Your task to perform on an android device: What's the weather today? Image 0: 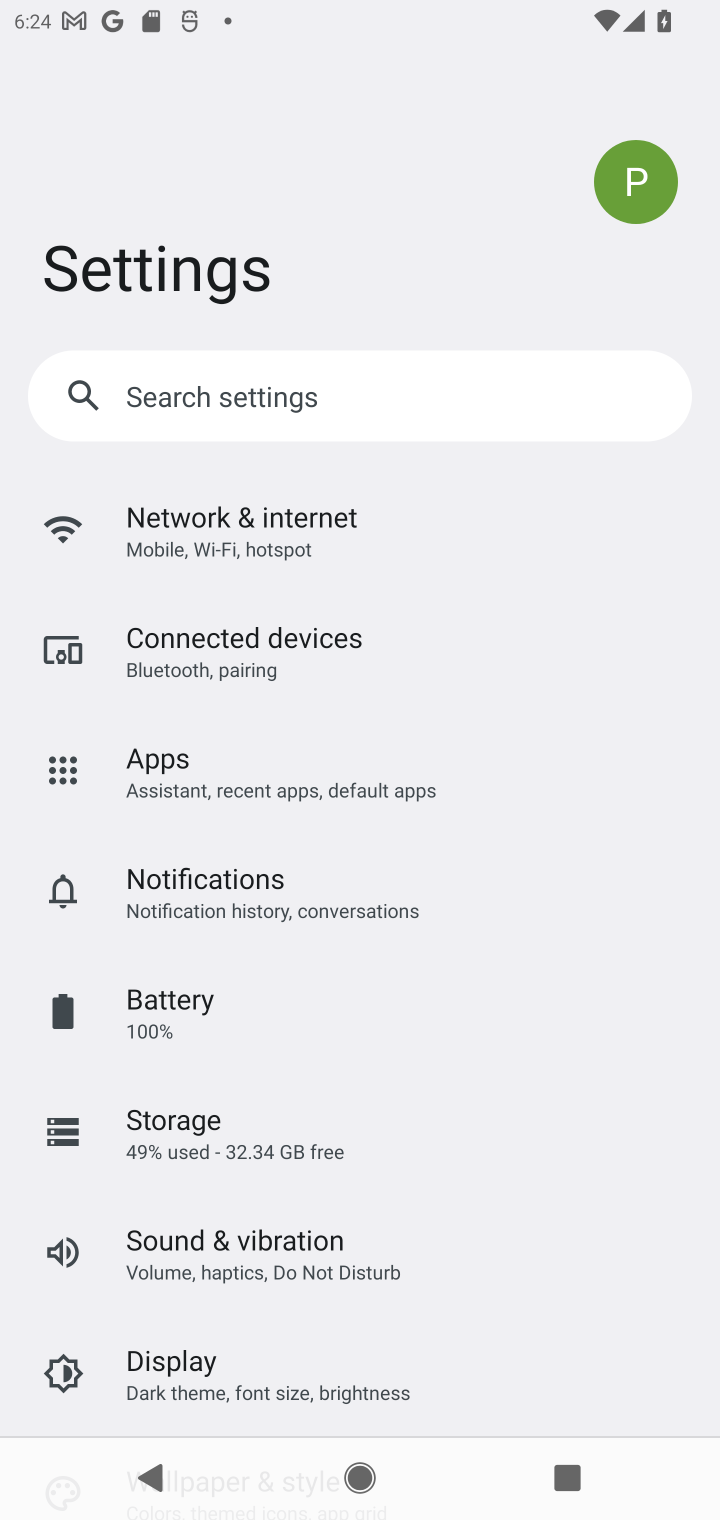
Step 0: press home button
Your task to perform on an android device: What's the weather today? Image 1: 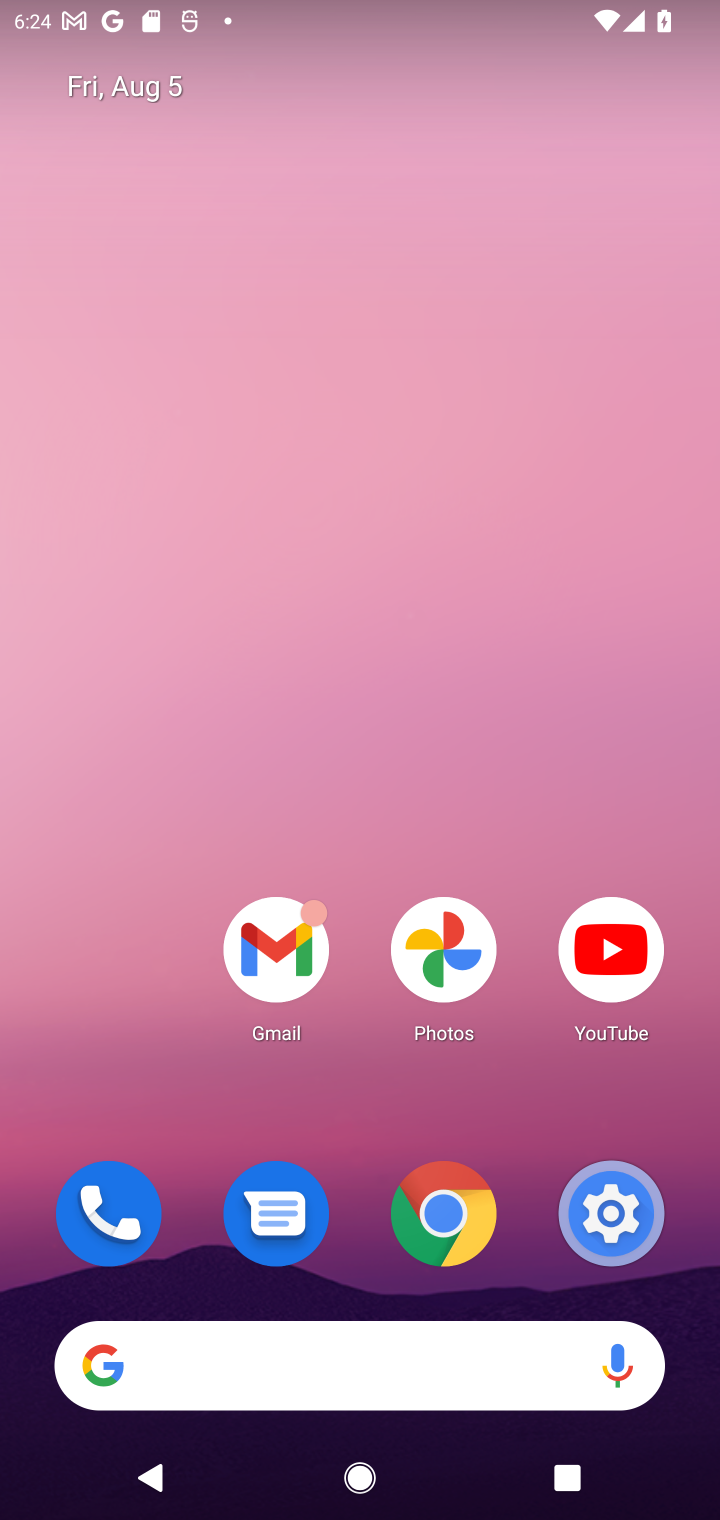
Step 1: click (395, 1391)
Your task to perform on an android device: What's the weather today? Image 2: 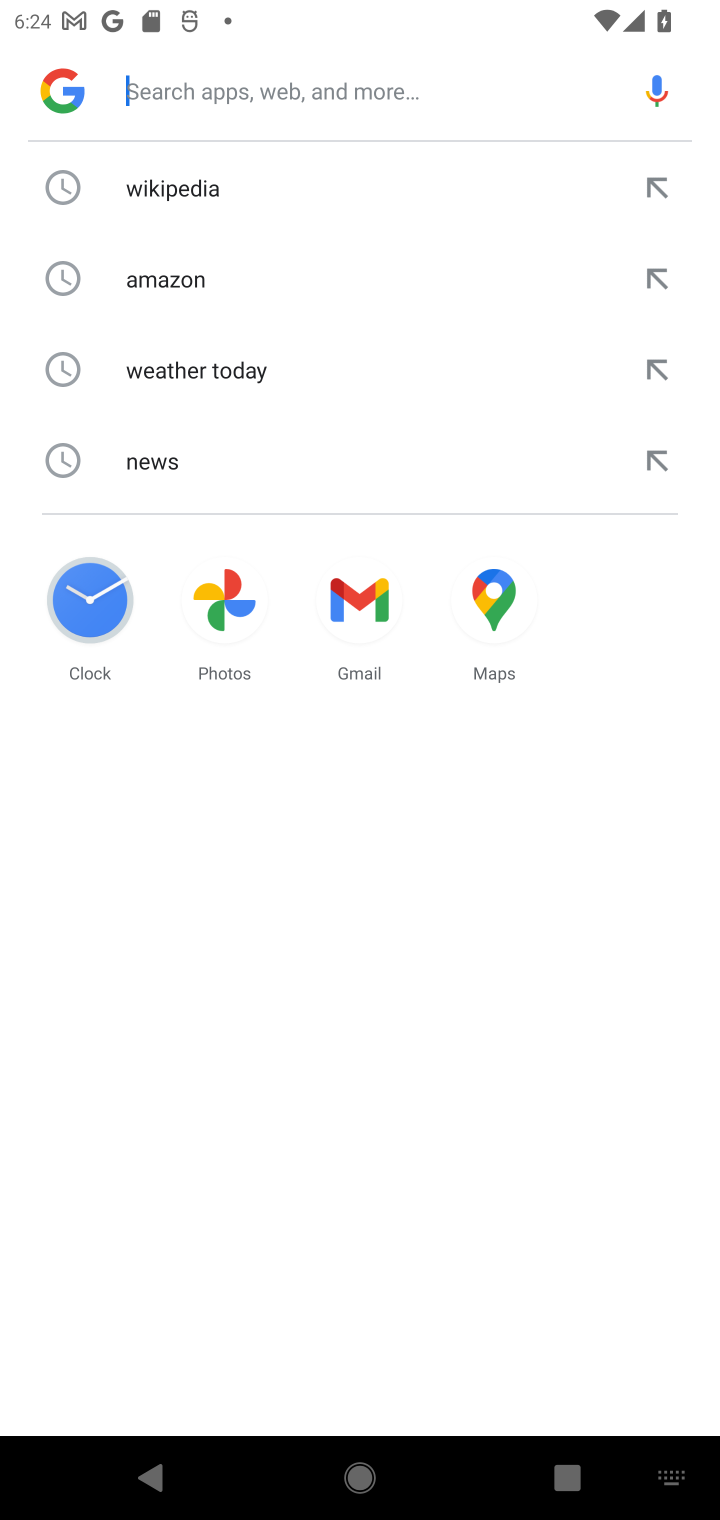
Step 2: click (326, 370)
Your task to perform on an android device: What's the weather today? Image 3: 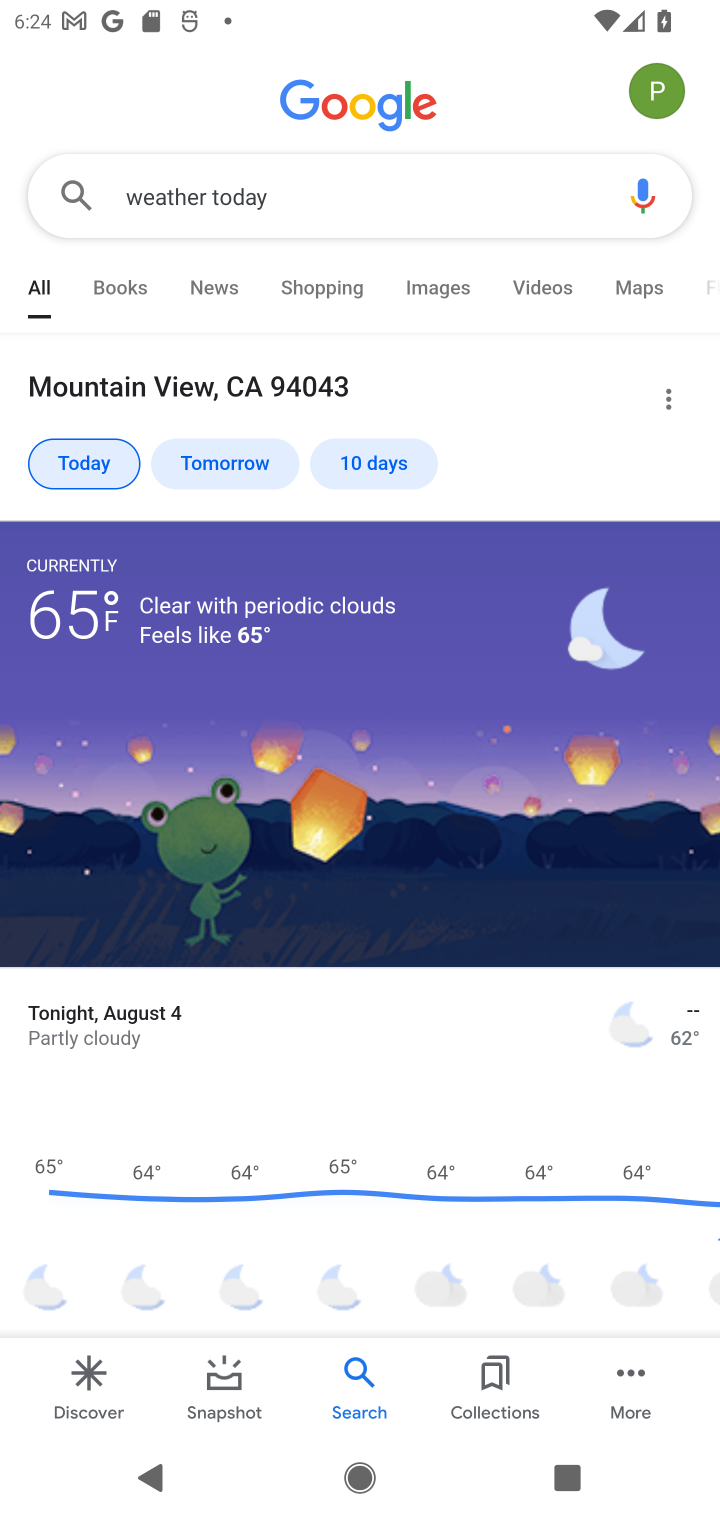
Step 3: task complete